Your task to perform on an android device: Open Android settings Image 0: 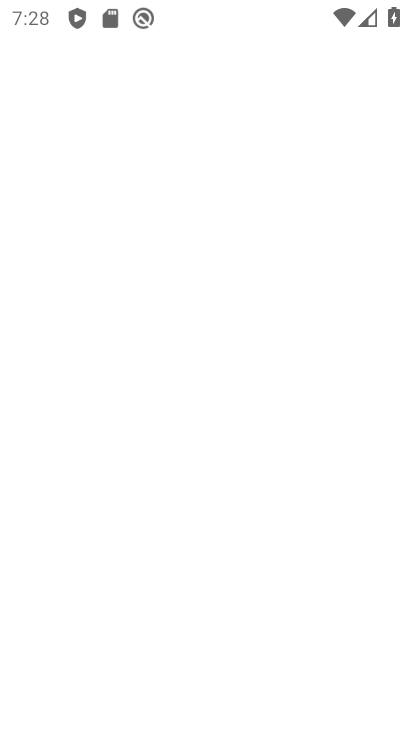
Step 0: press home button
Your task to perform on an android device: Open Android settings Image 1: 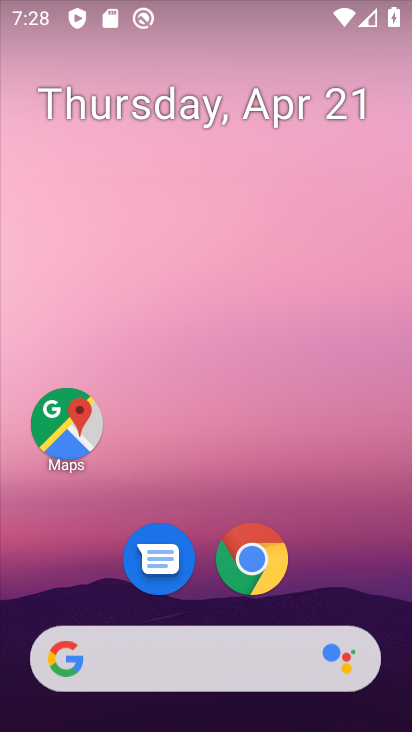
Step 1: drag from (197, 514) to (192, 28)
Your task to perform on an android device: Open Android settings Image 2: 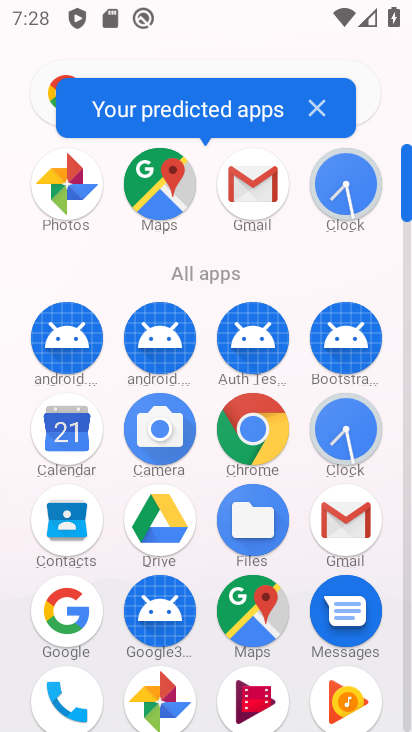
Step 2: drag from (208, 579) to (186, 25)
Your task to perform on an android device: Open Android settings Image 3: 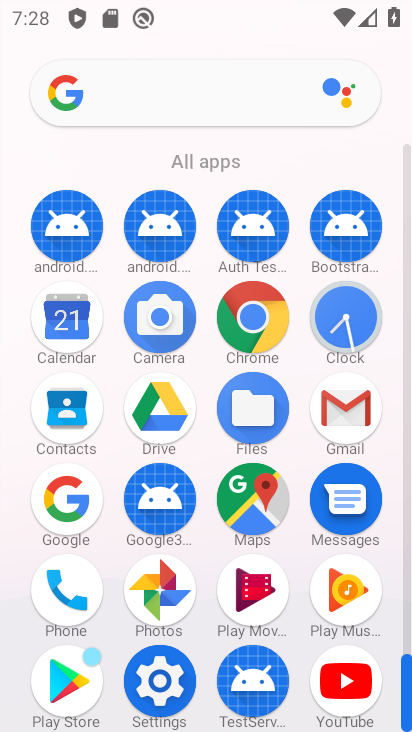
Step 3: drag from (202, 646) to (208, 328)
Your task to perform on an android device: Open Android settings Image 4: 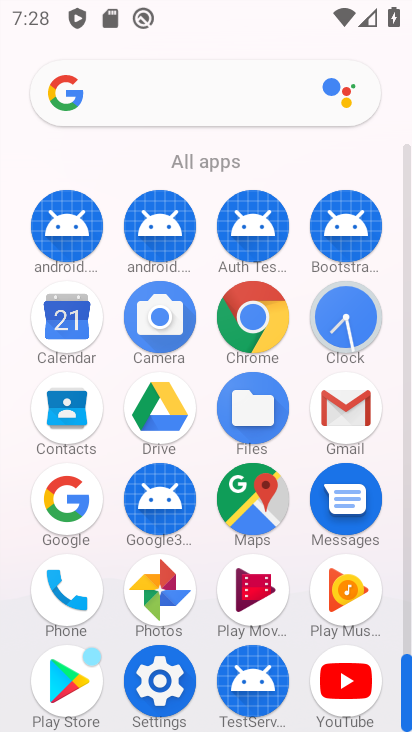
Step 4: click (170, 684)
Your task to perform on an android device: Open Android settings Image 5: 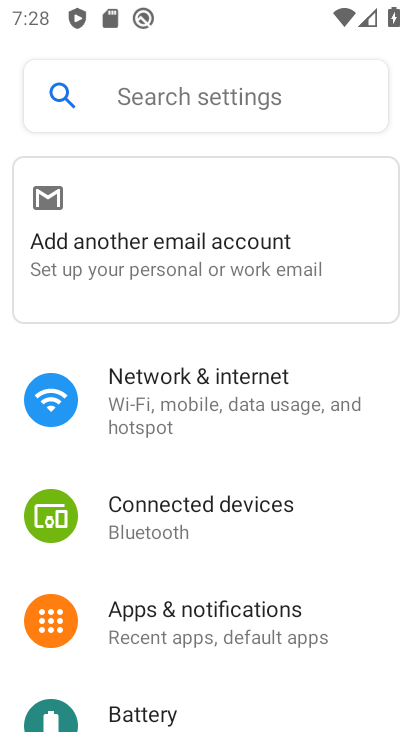
Step 5: drag from (161, 685) to (184, 212)
Your task to perform on an android device: Open Android settings Image 6: 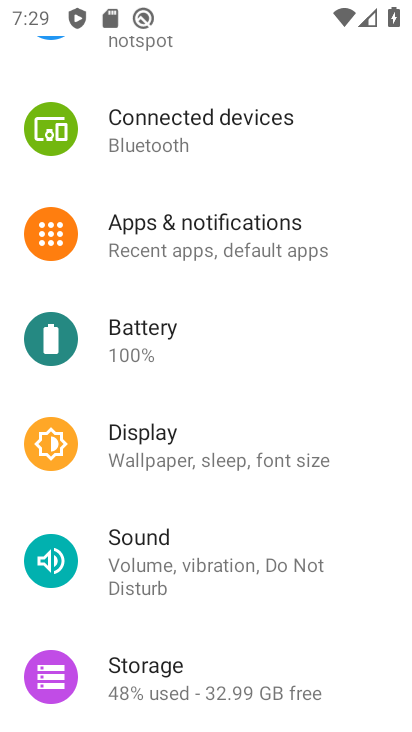
Step 6: drag from (188, 589) to (187, 89)
Your task to perform on an android device: Open Android settings Image 7: 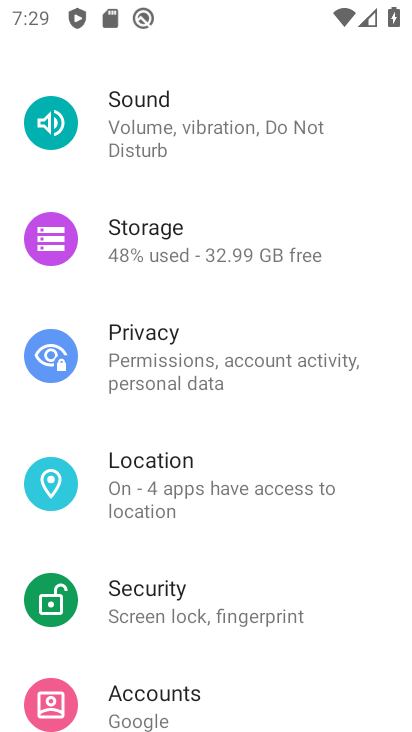
Step 7: drag from (164, 625) to (182, 65)
Your task to perform on an android device: Open Android settings Image 8: 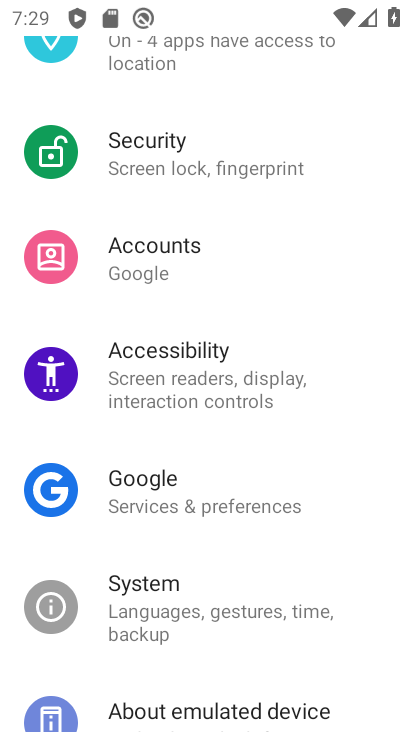
Step 8: drag from (179, 688) to (260, 53)
Your task to perform on an android device: Open Android settings Image 9: 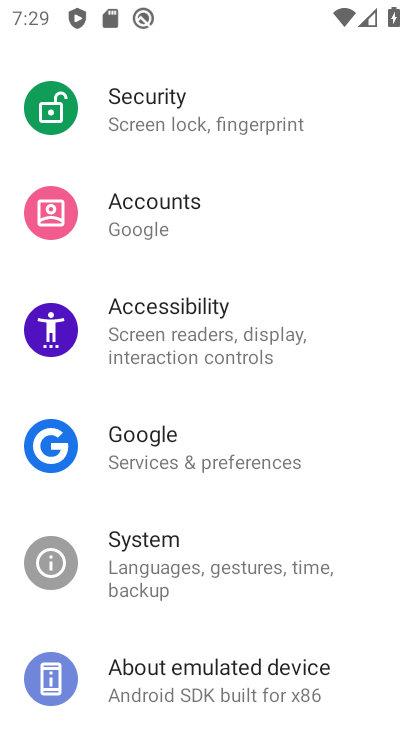
Step 9: drag from (182, 659) to (180, 220)
Your task to perform on an android device: Open Android settings Image 10: 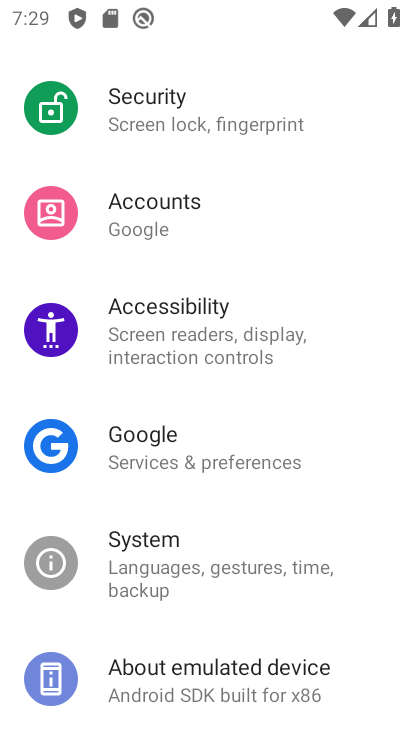
Step 10: click (167, 689)
Your task to perform on an android device: Open Android settings Image 11: 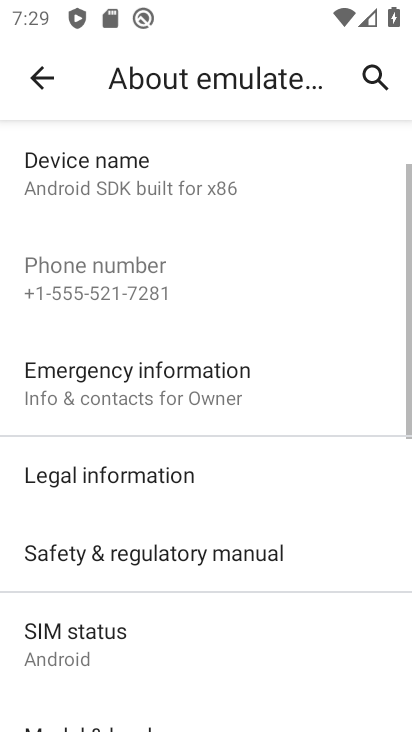
Step 11: task complete